Your task to perform on an android device: Open the calendar and show me this week's events? Image 0: 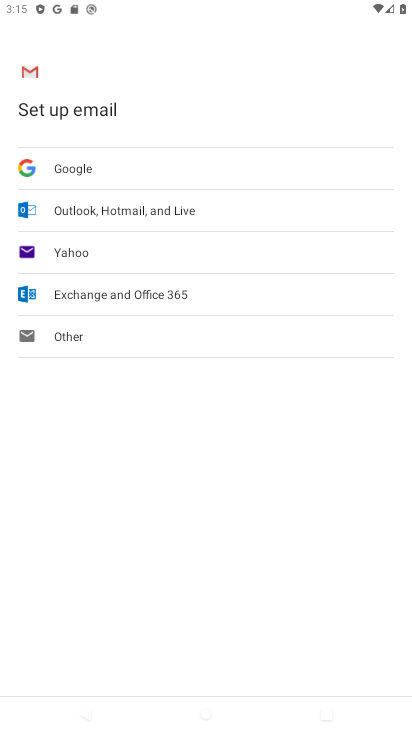
Step 0: press home button
Your task to perform on an android device: Open the calendar and show me this week's events? Image 1: 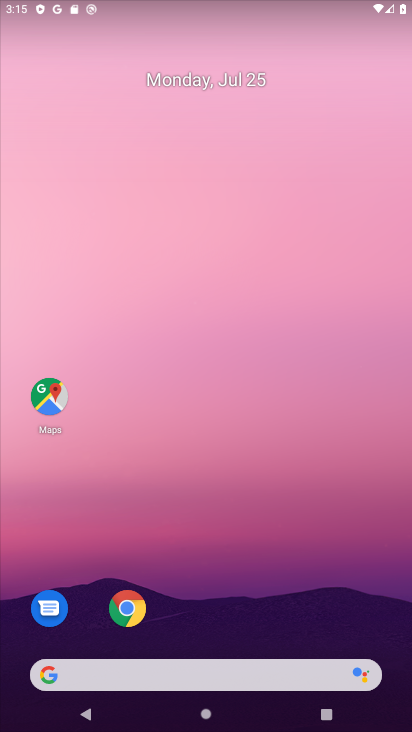
Step 1: drag from (59, 574) to (309, 135)
Your task to perform on an android device: Open the calendar and show me this week's events? Image 2: 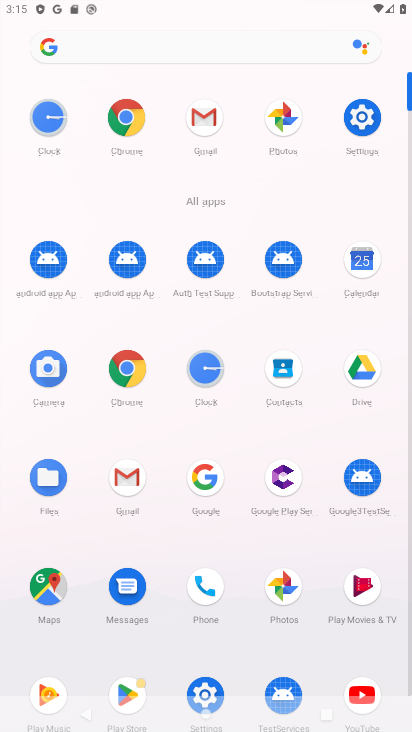
Step 2: click (362, 266)
Your task to perform on an android device: Open the calendar and show me this week's events? Image 3: 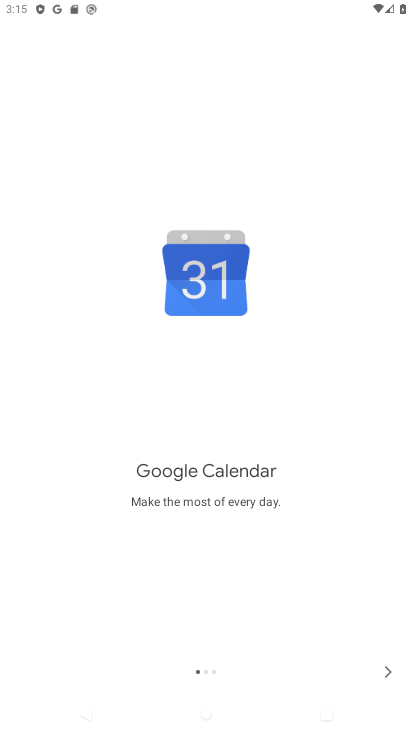
Step 3: click (384, 667)
Your task to perform on an android device: Open the calendar and show me this week's events? Image 4: 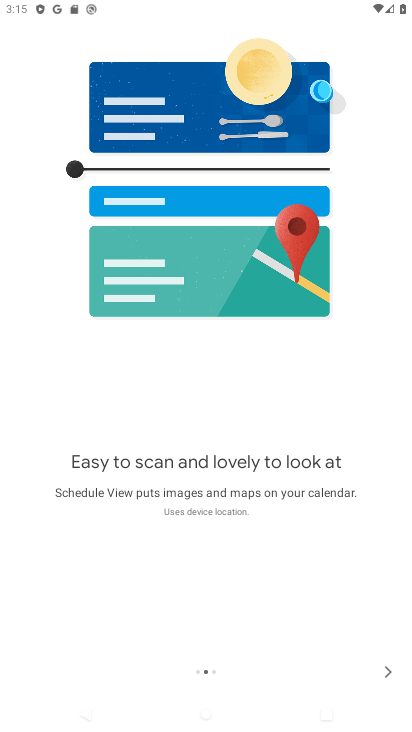
Step 4: click (384, 666)
Your task to perform on an android device: Open the calendar and show me this week's events? Image 5: 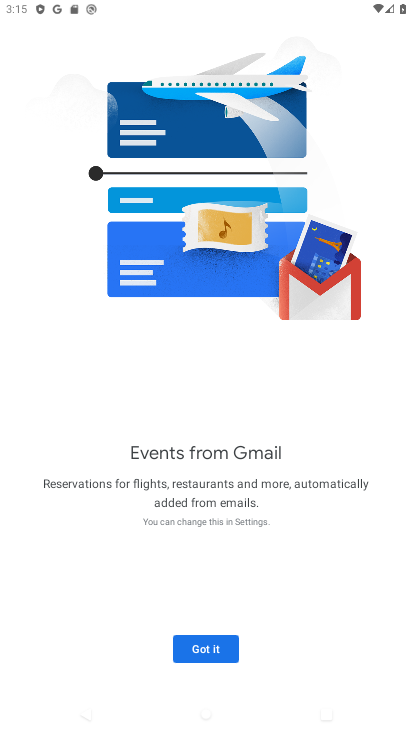
Step 5: click (200, 645)
Your task to perform on an android device: Open the calendar and show me this week's events? Image 6: 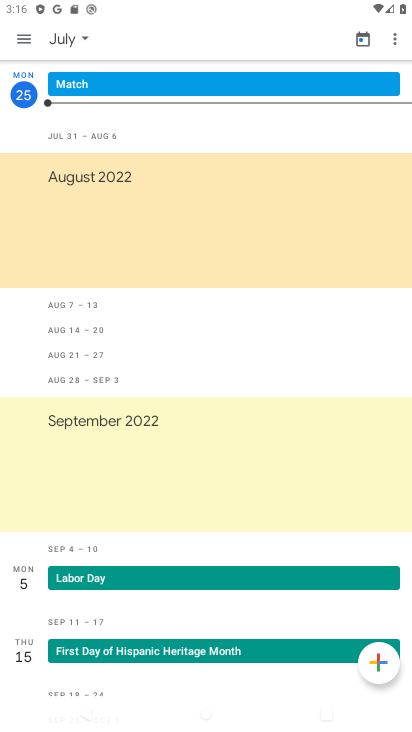
Step 6: task complete